Your task to perform on an android device: move an email to a new category in the gmail app Image 0: 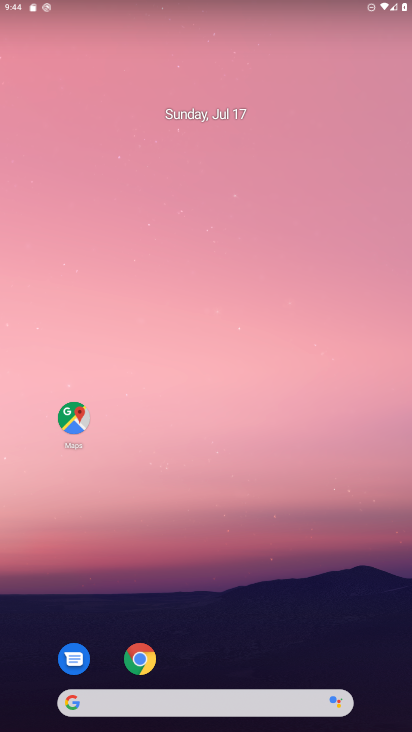
Step 0: drag from (260, 634) to (270, 93)
Your task to perform on an android device: move an email to a new category in the gmail app Image 1: 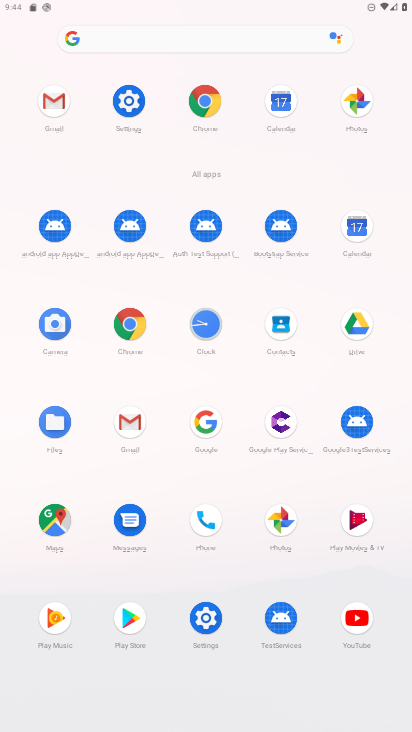
Step 1: click (125, 416)
Your task to perform on an android device: move an email to a new category in the gmail app Image 2: 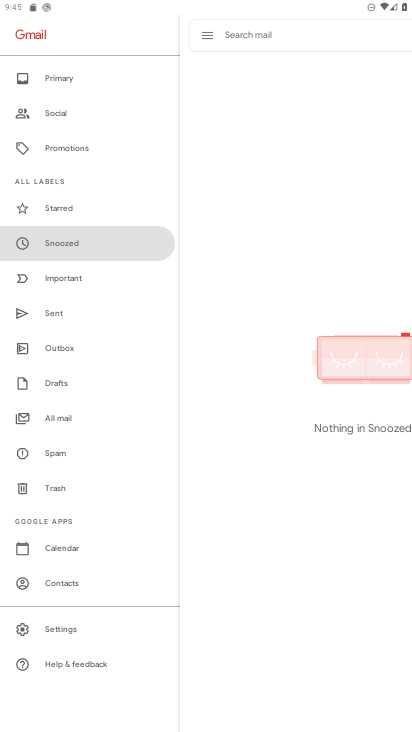
Step 2: click (61, 420)
Your task to perform on an android device: move an email to a new category in the gmail app Image 3: 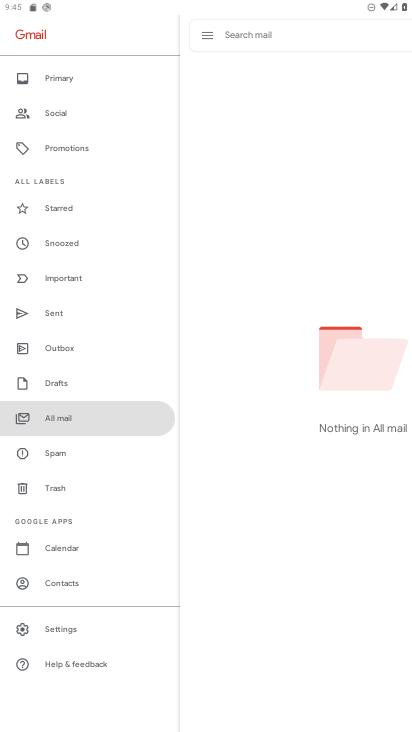
Step 3: task complete